Your task to perform on an android device: Open Amazon Image 0: 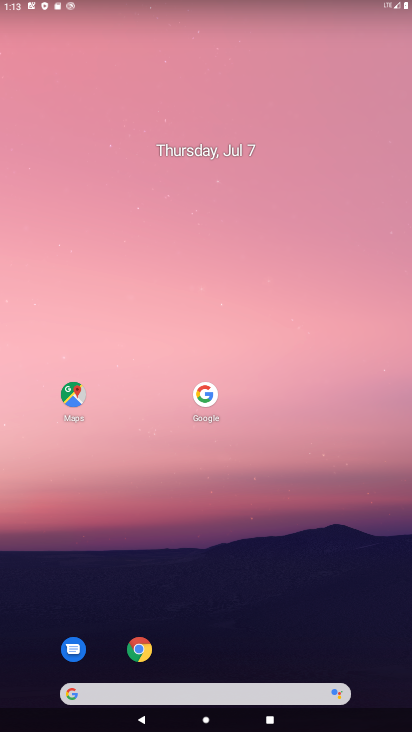
Step 0: press home button
Your task to perform on an android device: Open Amazon Image 1: 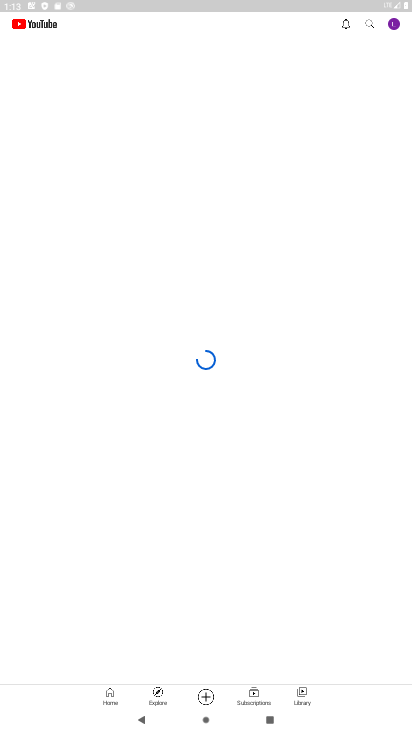
Step 1: click (381, 211)
Your task to perform on an android device: Open Amazon Image 2: 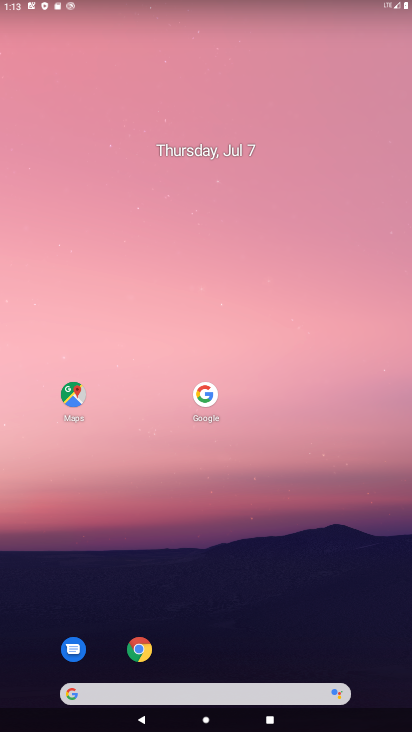
Step 2: press home button
Your task to perform on an android device: Open Amazon Image 3: 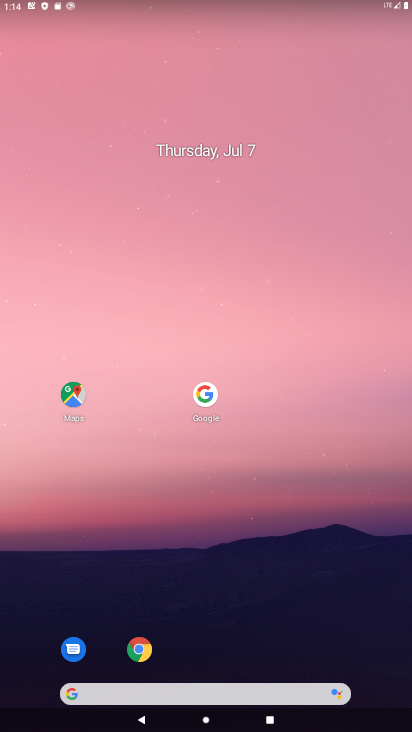
Step 3: click (158, 687)
Your task to perform on an android device: Open Amazon Image 4: 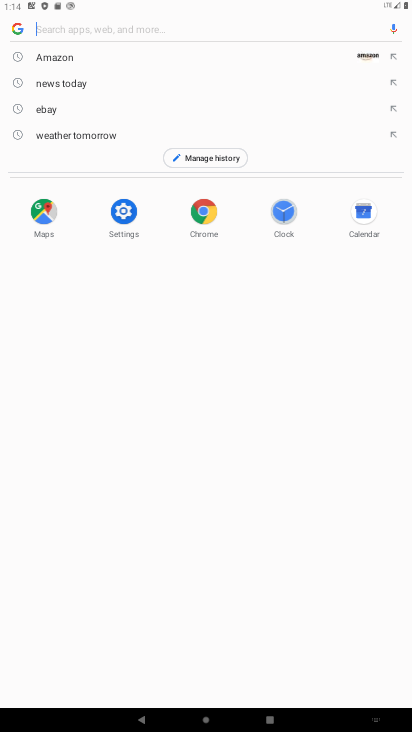
Step 4: click (67, 56)
Your task to perform on an android device: Open Amazon Image 5: 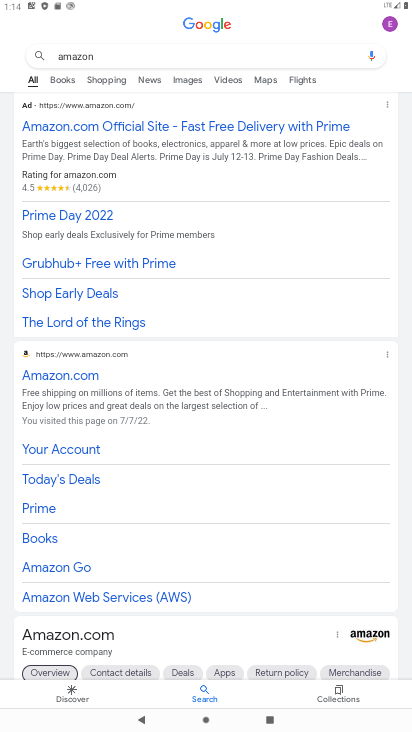
Step 5: click (36, 373)
Your task to perform on an android device: Open Amazon Image 6: 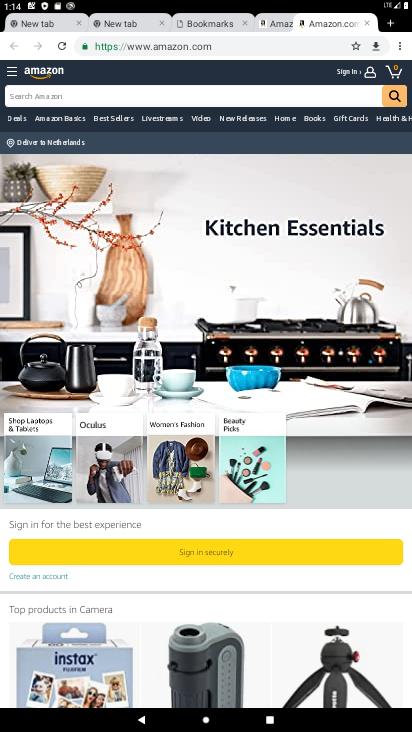
Step 6: task complete